Your task to perform on an android device: Open Maps and search for coffee Image 0: 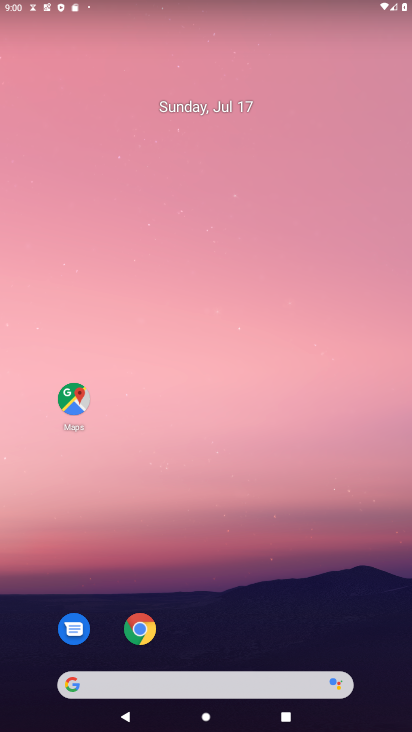
Step 0: drag from (217, 698) to (255, 128)
Your task to perform on an android device: Open Maps and search for coffee Image 1: 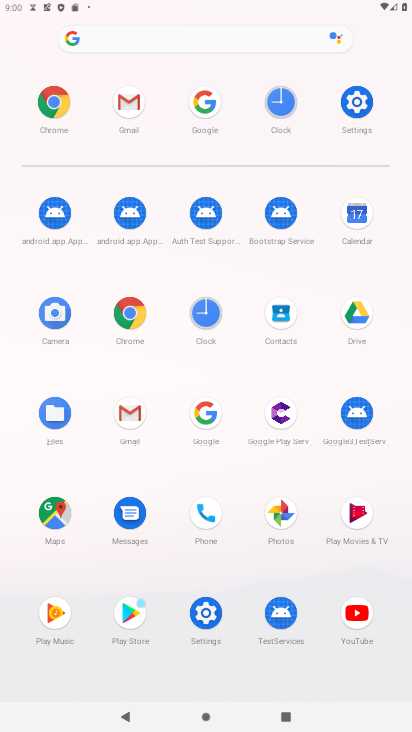
Step 1: click (55, 515)
Your task to perform on an android device: Open Maps and search for coffee Image 2: 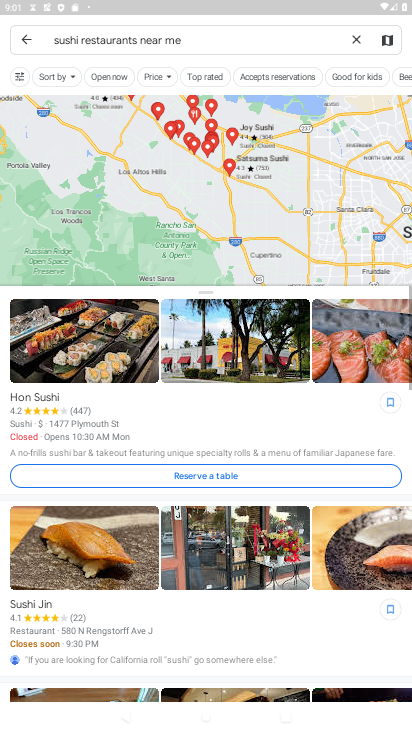
Step 2: click (358, 35)
Your task to perform on an android device: Open Maps and search for coffee Image 3: 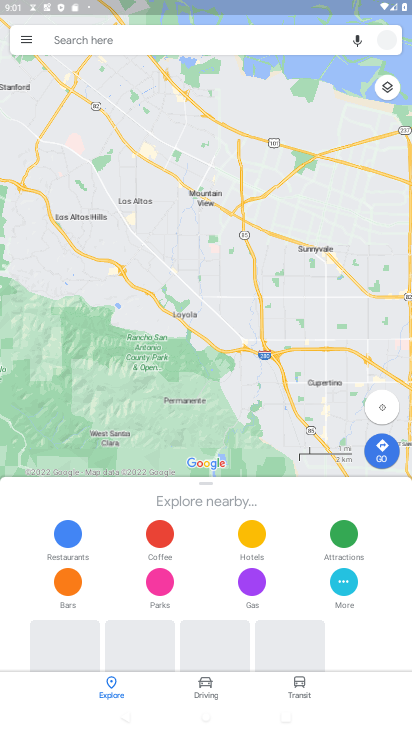
Step 3: click (248, 39)
Your task to perform on an android device: Open Maps and search for coffee Image 4: 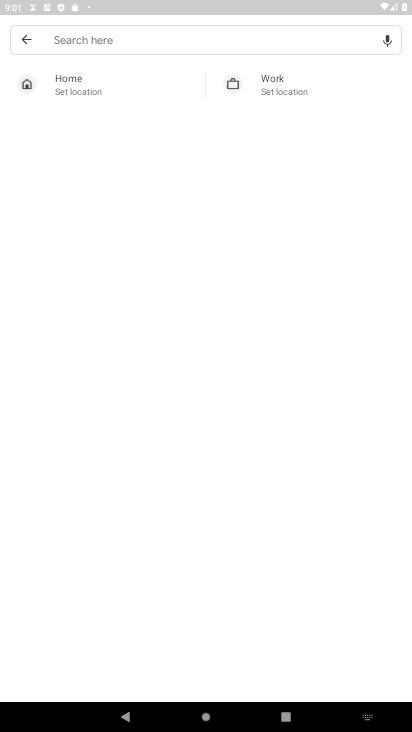
Step 4: type "coffee"
Your task to perform on an android device: Open Maps and search for coffee Image 5: 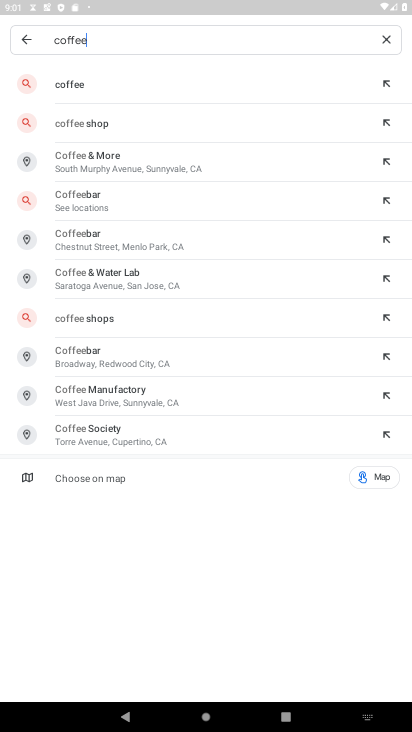
Step 5: click (78, 82)
Your task to perform on an android device: Open Maps and search for coffee Image 6: 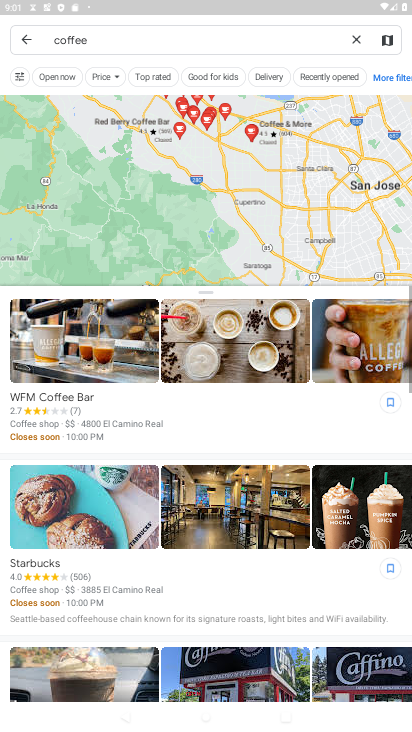
Step 6: task complete